Your task to perform on an android device: turn on notifications settings in the gmail app Image 0: 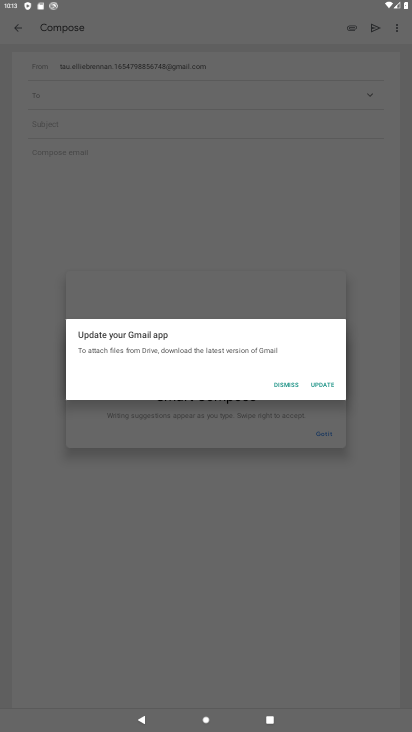
Step 0: press home button
Your task to perform on an android device: turn on notifications settings in the gmail app Image 1: 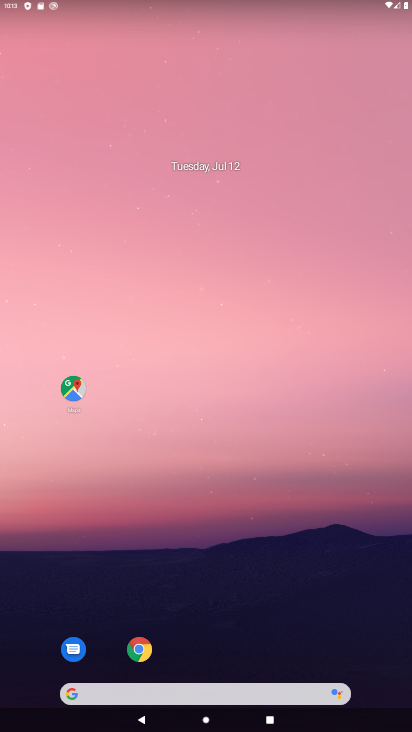
Step 1: drag from (394, 656) to (320, 144)
Your task to perform on an android device: turn on notifications settings in the gmail app Image 2: 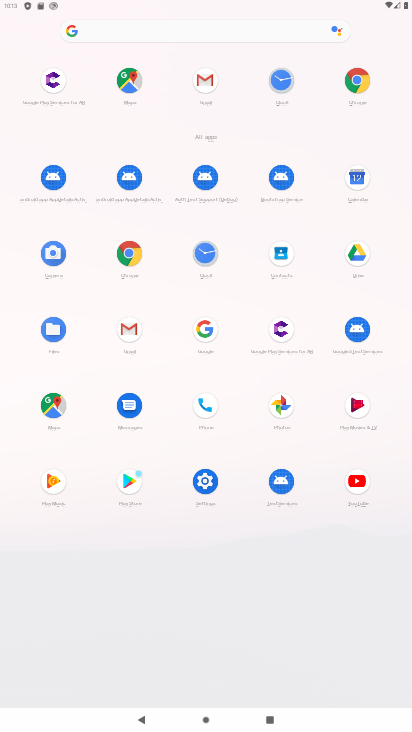
Step 2: click (126, 327)
Your task to perform on an android device: turn on notifications settings in the gmail app Image 3: 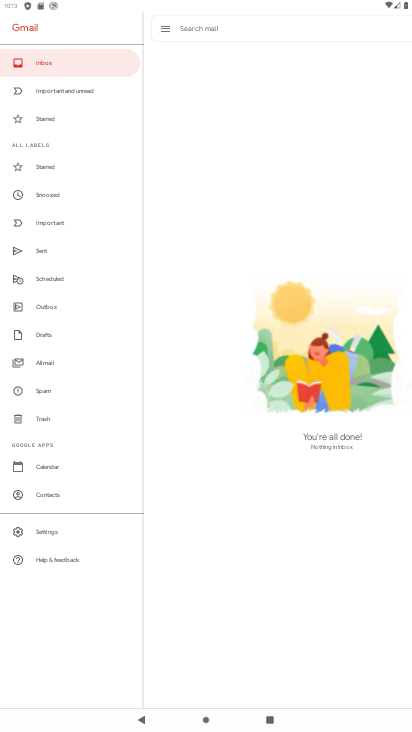
Step 3: click (48, 525)
Your task to perform on an android device: turn on notifications settings in the gmail app Image 4: 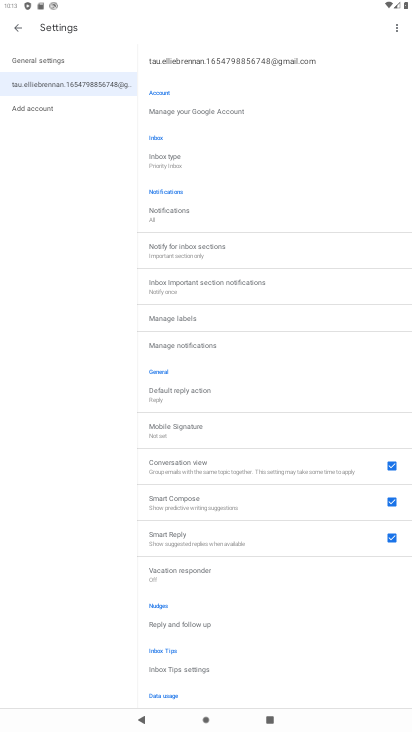
Step 4: click (194, 345)
Your task to perform on an android device: turn on notifications settings in the gmail app Image 5: 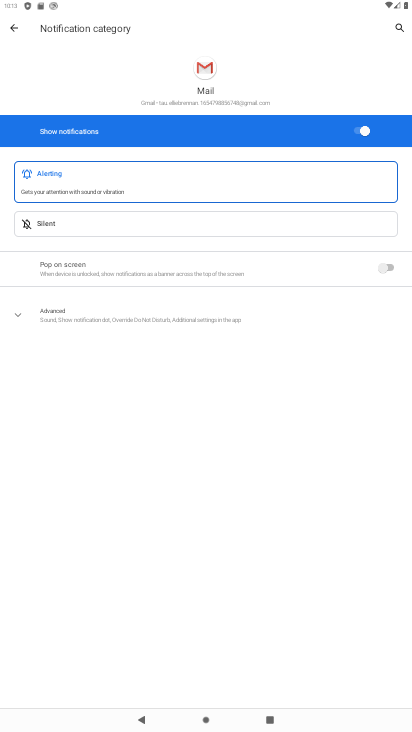
Step 5: task complete